Your task to perform on an android device: open a new tab in the chrome app Image 0: 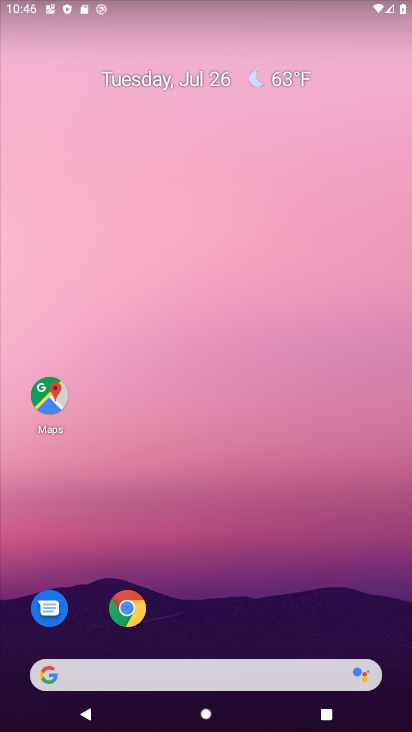
Step 0: click (132, 607)
Your task to perform on an android device: open a new tab in the chrome app Image 1: 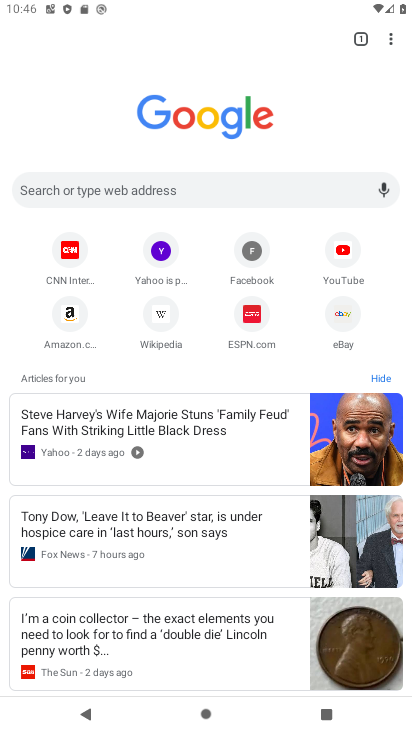
Step 1: click (360, 33)
Your task to perform on an android device: open a new tab in the chrome app Image 2: 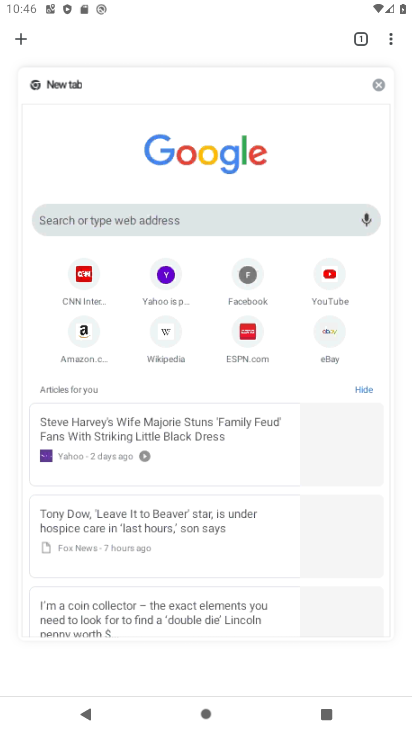
Step 2: click (22, 32)
Your task to perform on an android device: open a new tab in the chrome app Image 3: 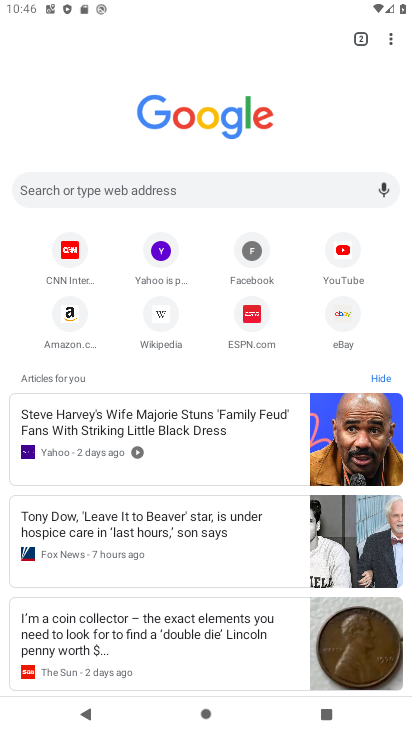
Step 3: task complete